Your task to perform on an android device: turn off airplane mode Image 0: 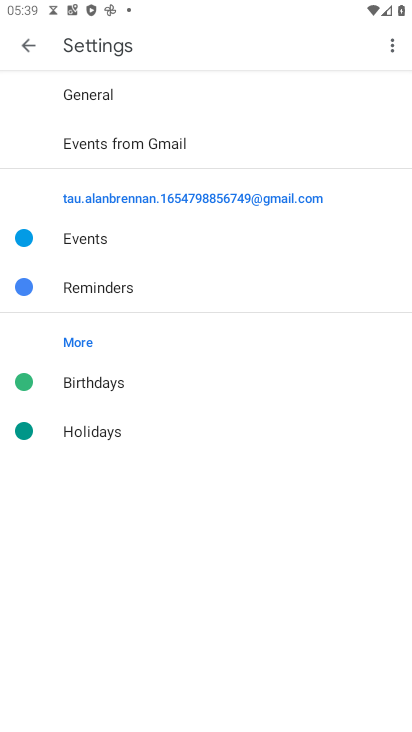
Step 0: press home button
Your task to perform on an android device: turn off airplane mode Image 1: 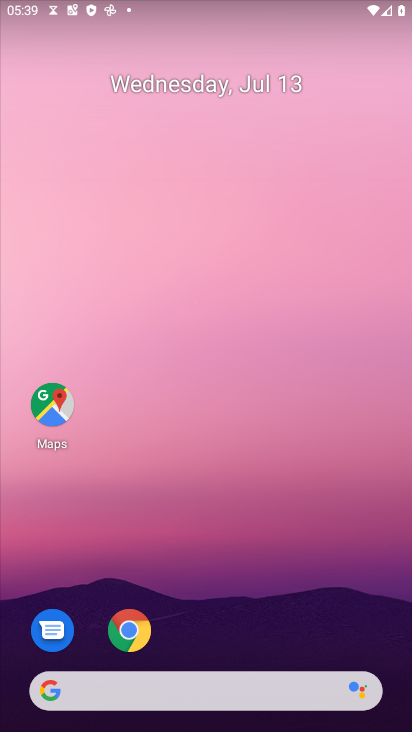
Step 1: drag from (300, 610) to (350, 66)
Your task to perform on an android device: turn off airplane mode Image 2: 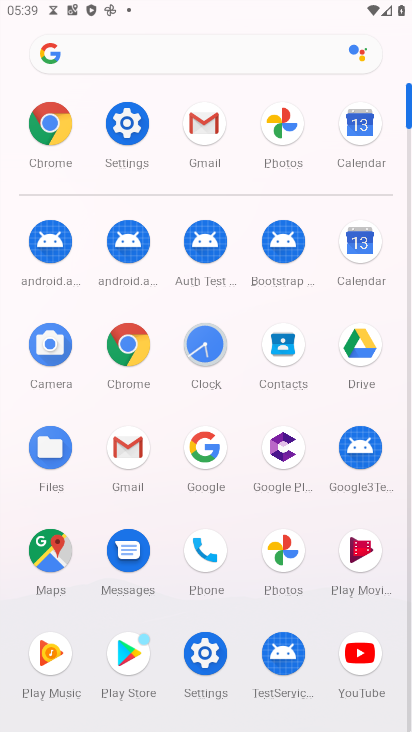
Step 2: click (134, 122)
Your task to perform on an android device: turn off airplane mode Image 3: 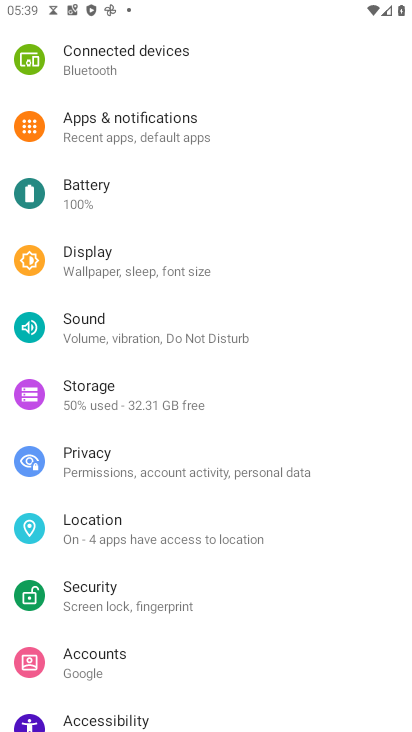
Step 3: drag from (177, 177) to (135, 693)
Your task to perform on an android device: turn off airplane mode Image 4: 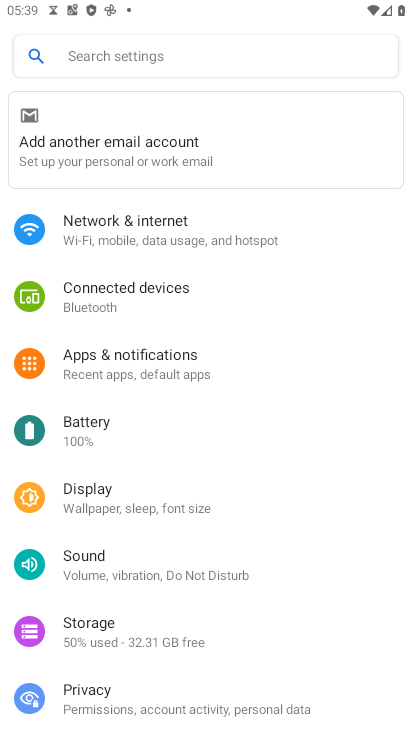
Step 4: click (180, 236)
Your task to perform on an android device: turn off airplane mode Image 5: 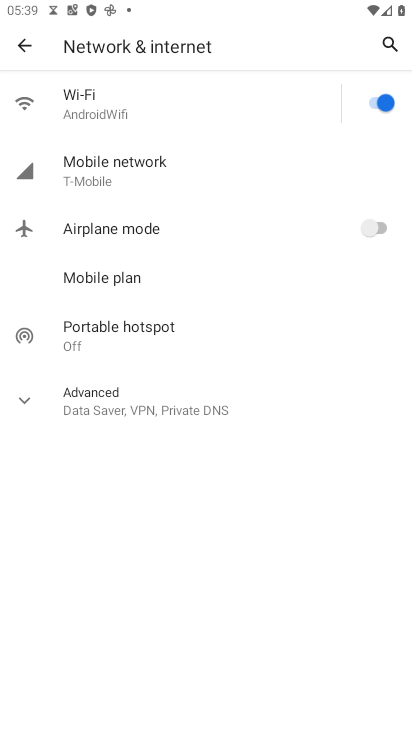
Step 5: task complete